Your task to perform on an android device: Open notification settings Image 0: 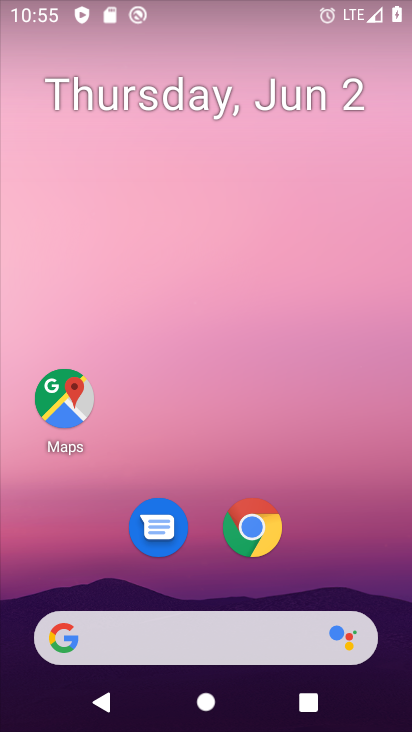
Step 0: drag from (173, 646) to (267, 42)
Your task to perform on an android device: Open notification settings Image 1: 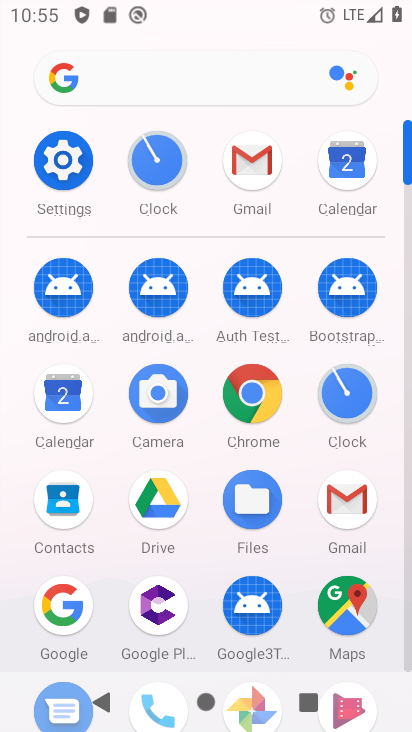
Step 1: click (60, 162)
Your task to perform on an android device: Open notification settings Image 2: 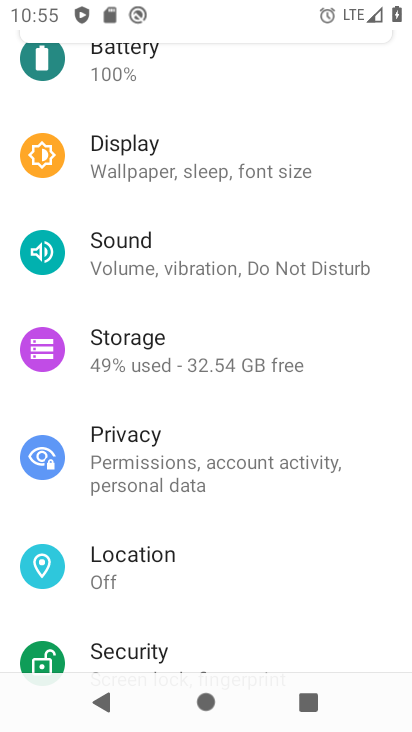
Step 2: drag from (200, 218) to (175, 446)
Your task to perform on an android device: Open notification settings Image 3: 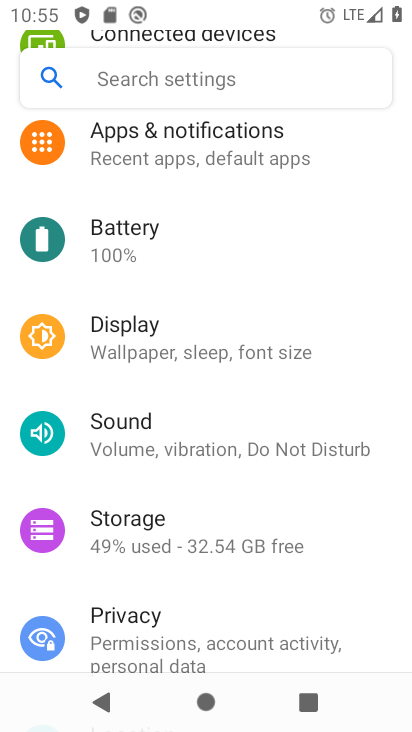
Step 3: click (169, 166)
Your task to perform on an android device: Open notification settings Image 4: 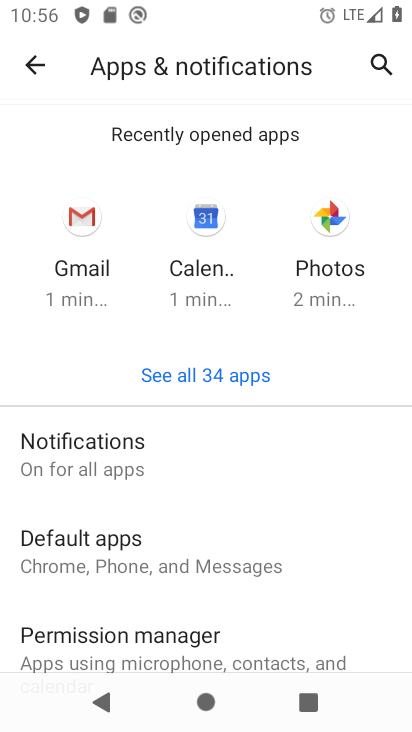
Step 4: task complete